Your task to perform on an android device: move an email to a new category in the gmail app Image 0: 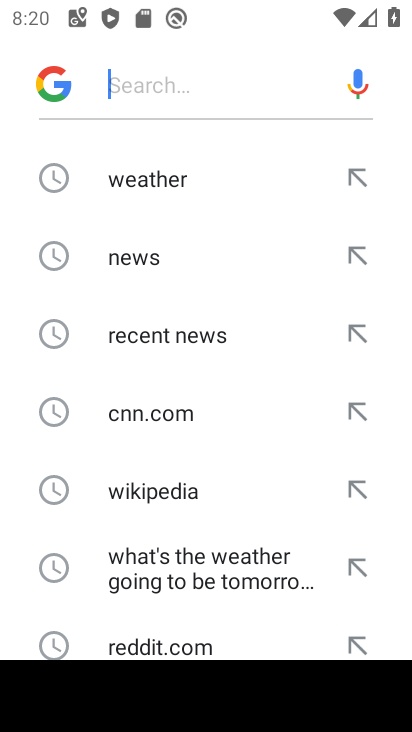
Step 0: press back button
Your task to perform on an android device: move an email to a new category in the gmail app Image 1: 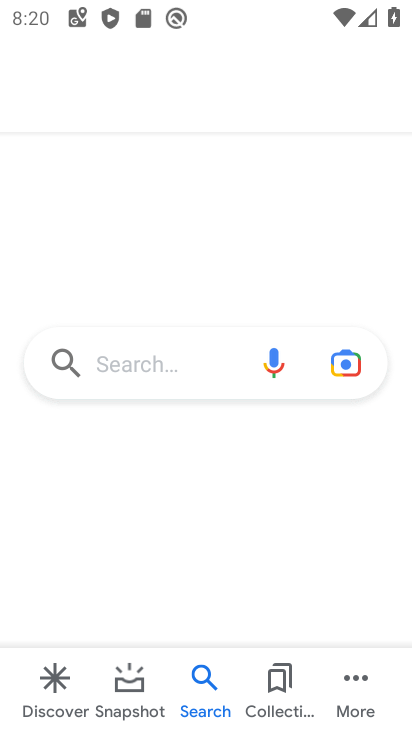
Step 1: press back button
Your task to perform on an android device: move an email to a new category in the gmail app Image 2: 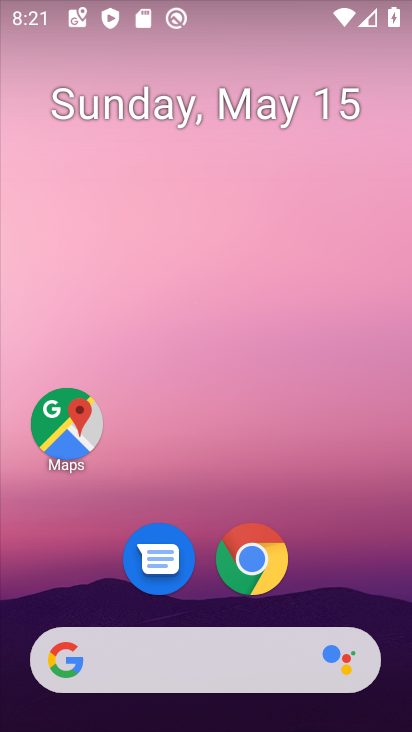
Step 2: drag from (345, 560) to (345, 102)
Your task to perform on an android device: move an email to a new category in the gmail app Image 3: 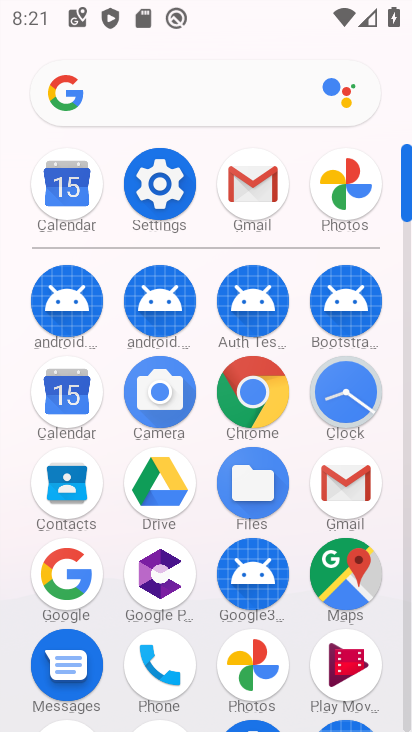
Step 3: click (264, 165)
Your task to perform on an android device: move an email to a new category in the gmail app Image 4: 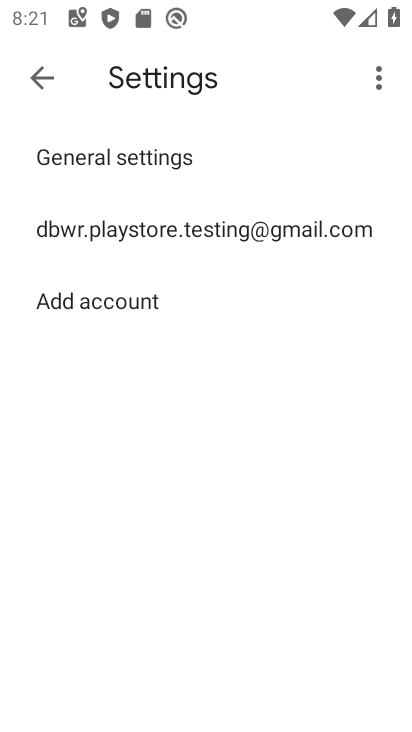
Step 4: click (57, 69)
Your task to perform on an android device: move an email to a new category in the gmail app Image 5: 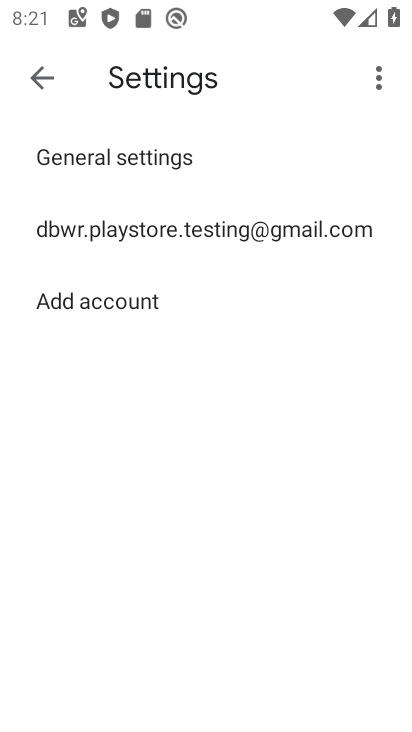
Step 5: click (42, 71)
Your task to perform on an android device: move an email to a new category in the gmail app Image 6: 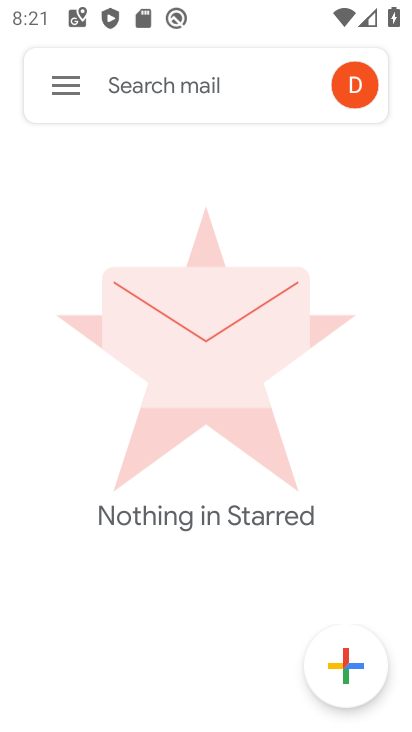
Step 6: click (56, 82)
Your task to perform on an android device: move an email to a new category in the gmail app Image 7: 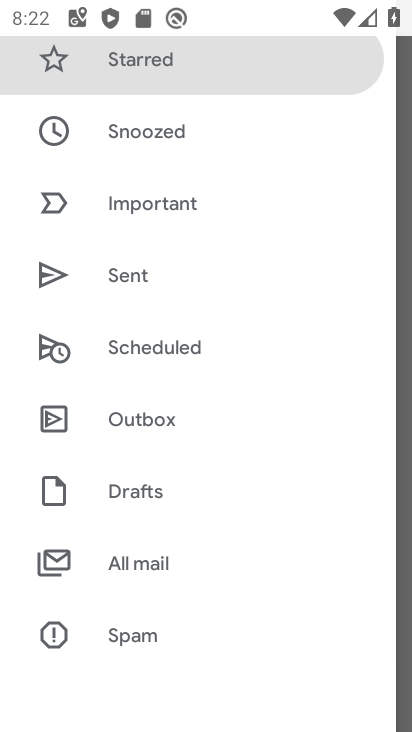
Step 7: click (129, 556)
Your task to perform on an android device: move an email to a new category in the gmail app Image 8: 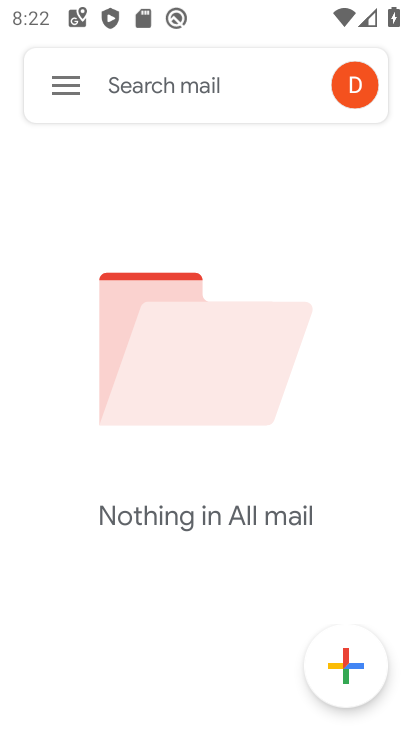
Step 8: task complete